Your task to perform on an android device: turn off smart reply in the gmail app Image 0: 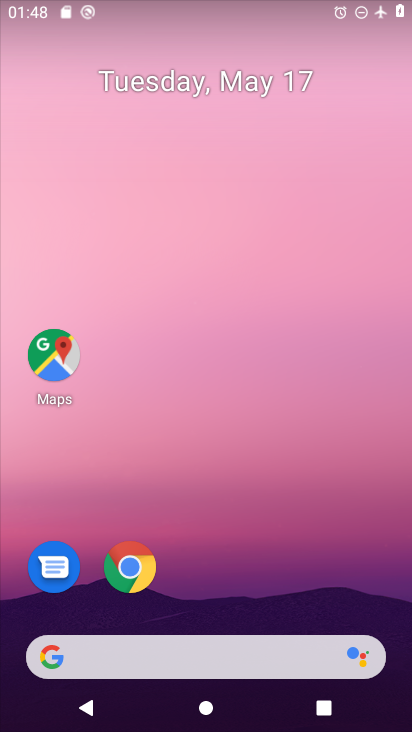
Step 0: drag from (197, 560) to (145, 122)
Your task to perform on an android device: turn off smart reply in the gmail app Image 1: 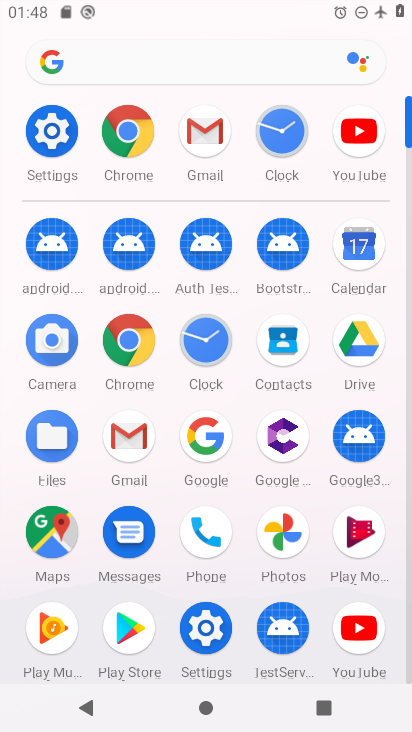
Step 1: click (206, 134)
Your task to perform on an android device: turn off smart reply in the gmail app Image 2: 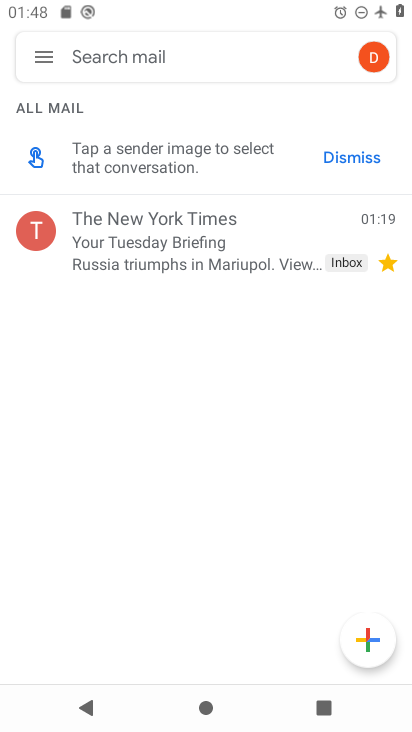
Step 2: click (43, 51)
Your task to perform on an android device: turn off smart reply in the gmail app Image 3: 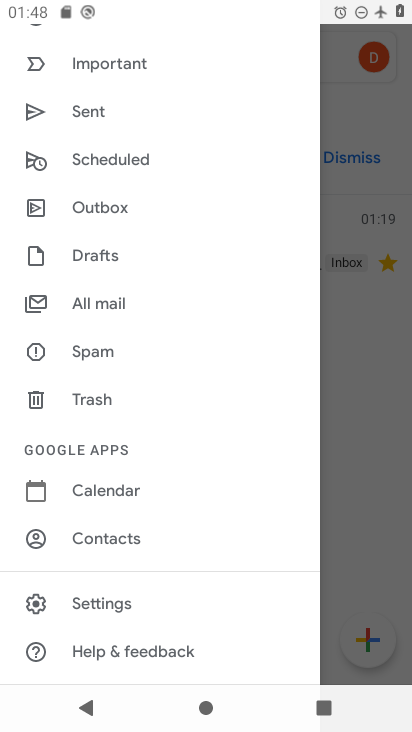
Step 3: click (109, 606)
Your task to perform on an android device: turn off smart reply in the gmail app Image 4: 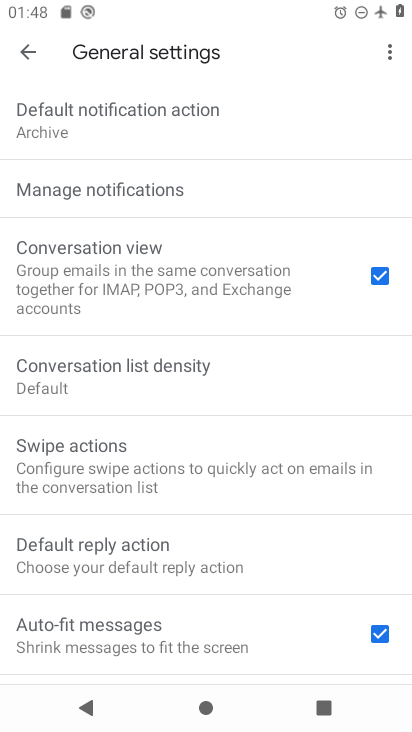
Step 4: click (22, 48)
Your task to perform on an android device: turn off smart reply in the gmail app Image 5: 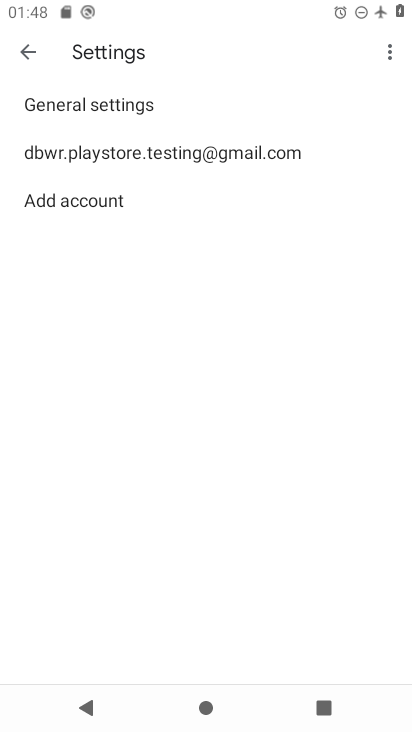
Step 5: click (151, 150)
Your task to perform on an android device: turn off smart reply in the gmail app Image 6: 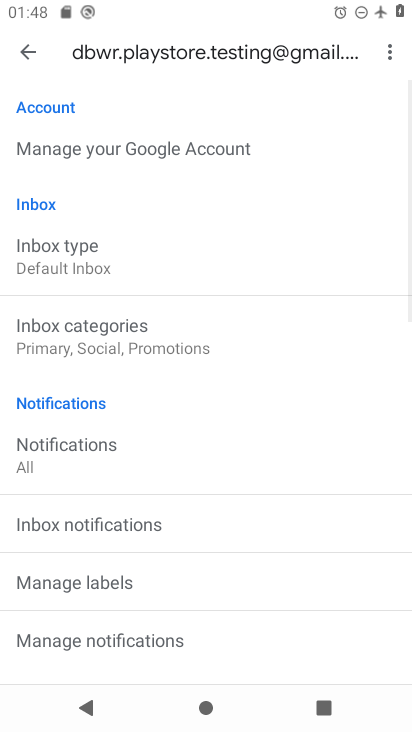
Step 6: drag from (274, 555) to (225, 223)
Your task to perform on an android device: turn off smart reply in the gmail app Image 7: 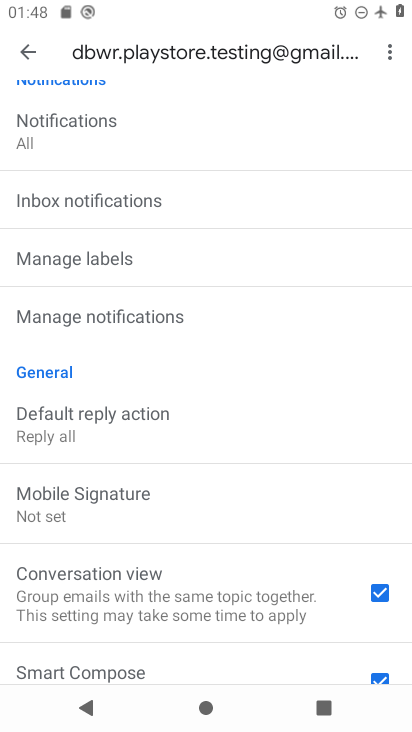
Step 7: drag from (219, 535) to (186, 222)
Your task to perform on an android device: turn off smart reply in the gmail app Image 8: 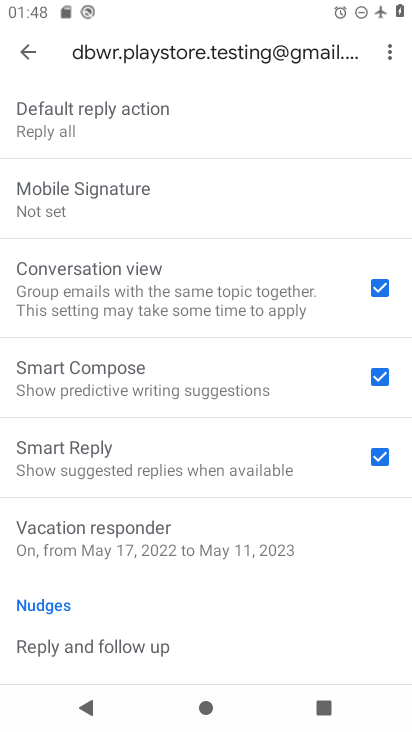
Step 8: click (377, 446)
Your task to perform on an android device: turn off smart reply in the gmail app Image 9: 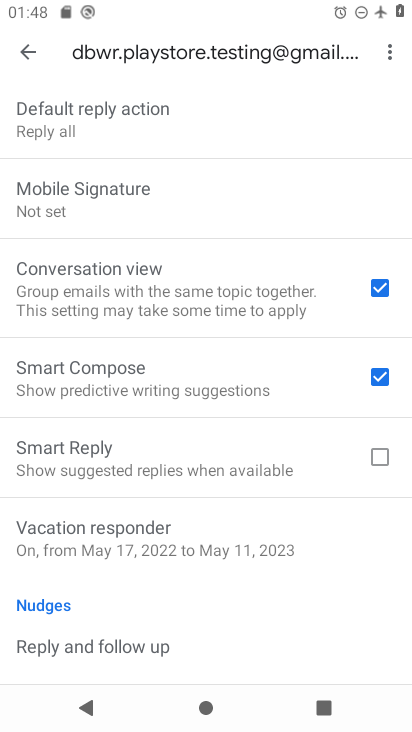
Step 9: task complete